Your task to perform on an android device: Go to battery settings Image 0: 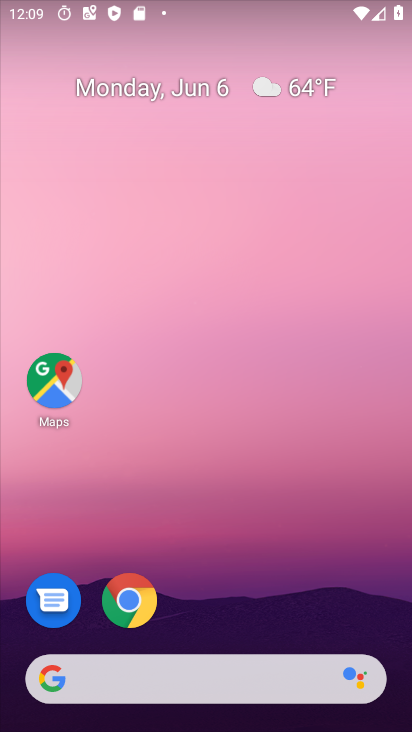
Step 0: drag from (255, 364) to (225, 189)
Your task to perform on an android device: Go to battery settings Image 1: 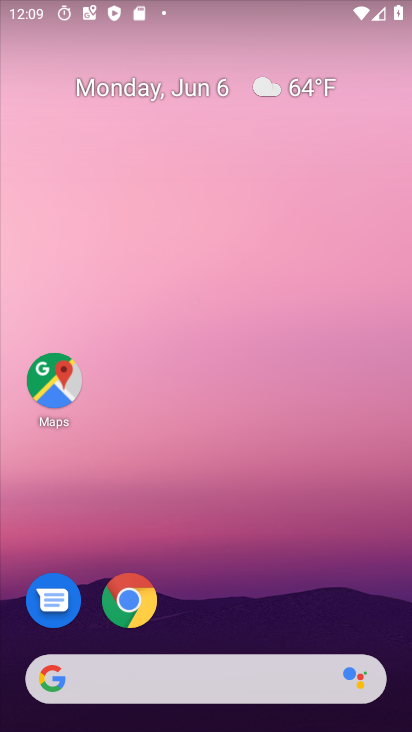
Step 1: drag from (270, 644) to (214, 163)
Your task to perform on an android device: Go to battery settings Image 2: 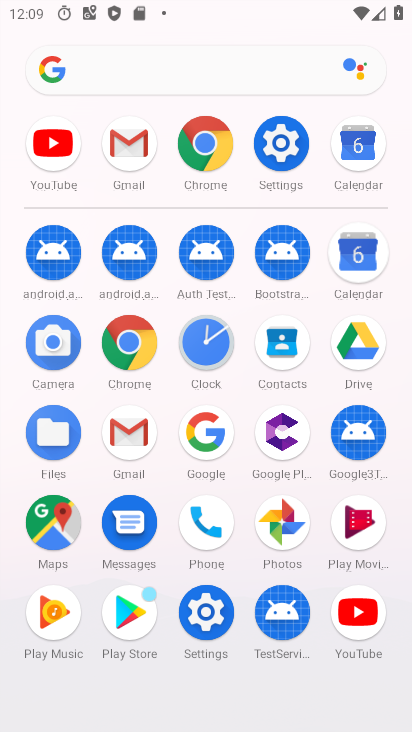
Step 2: drag from (202, 391) to (173, 114)
Your task to perform on an android device: Go to battery settings Image 3: 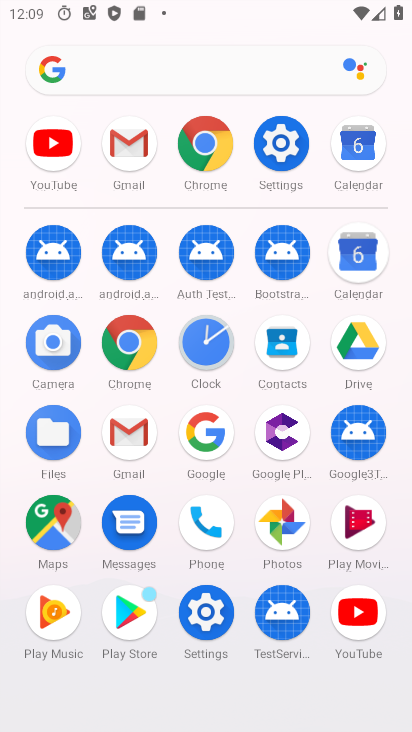
Step 3: click (272, 131)
Your task to perform on an android device: Go to battery settings Image 4: 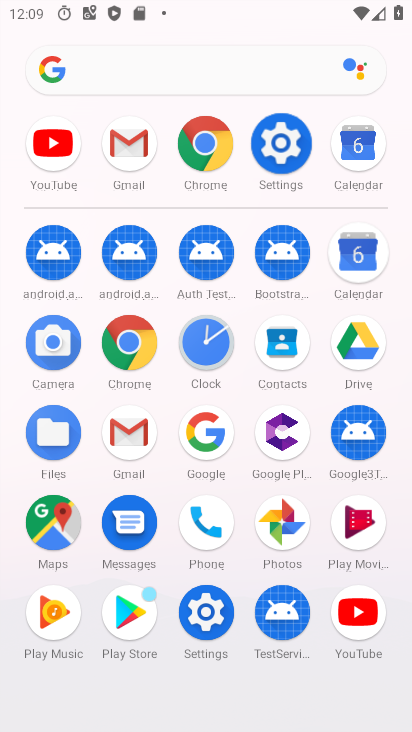
Step 4: click (272, 133)
Your task to perform on an android device: Go to battery settings Image 5: 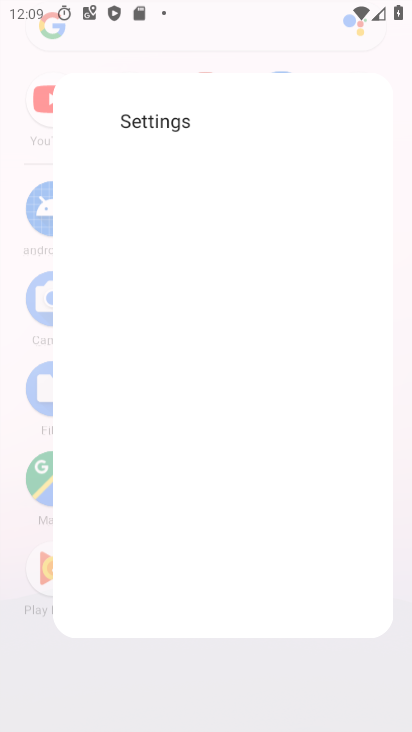
Step 5: click (274, 139)
Your task to perform on an android device: Go to battery settings Image 6: 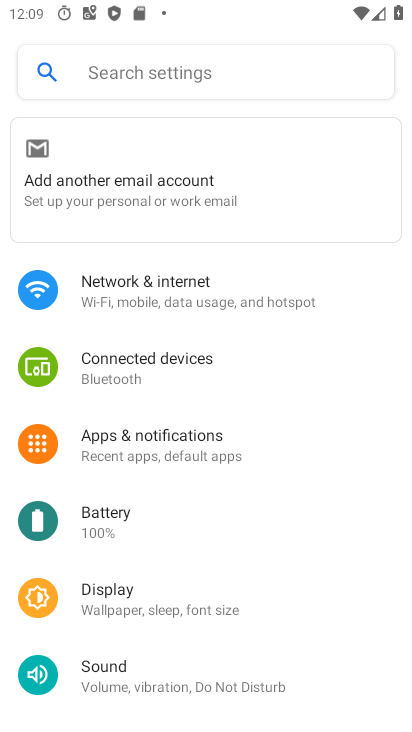
Step 6: click (100, 508)
Your task to perform on an android device: Go to battery settings Image 7: 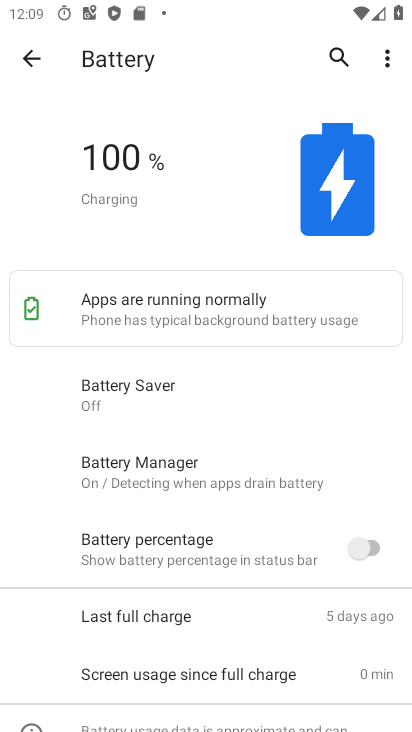
Step 7: task complete